Your task to perform on an android device: Open notification settings Image 0: 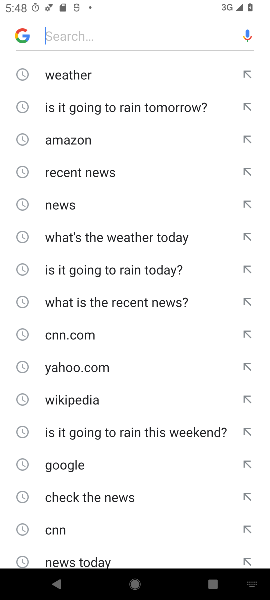
Step 0: press home button
Your task to perform on an android device: Open notification settings Image 1: 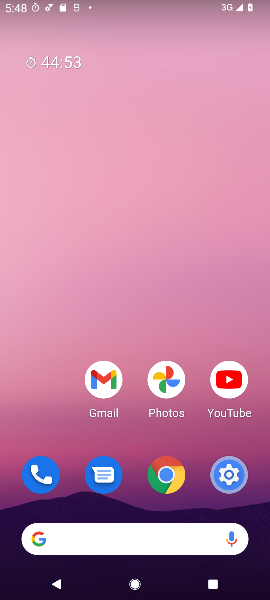
Step 1: drag from (54, 368) to (51, 117)
Your task to perform on an android device: Open notification settings Image 2: 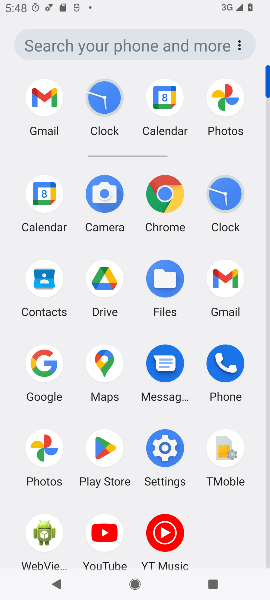
Step 2: click (159, 454)
Your task to perform on an android device: Open notification settings Image 3: 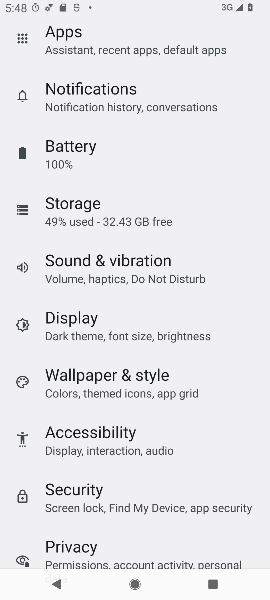
Step 3: drag from (222, 292) to (230, 361)
Your task to perform on an android device: Open notification settings Image 4: 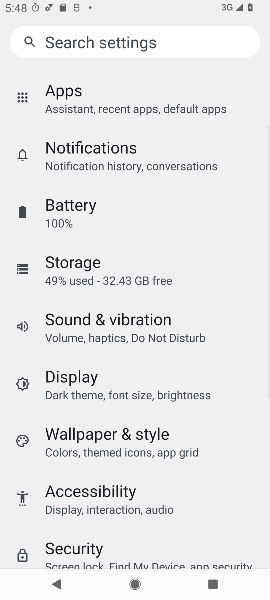
Step 4: drag from (233, 250) to (235, 344)
Your task to perform on an android device: Open notification settings Image 5: 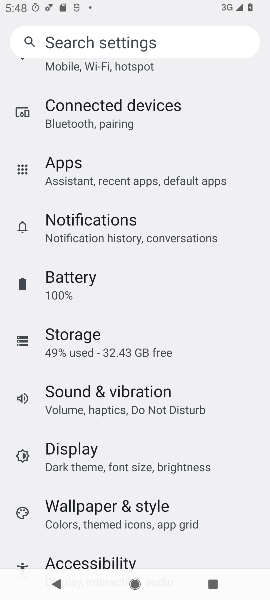
Step 5: drag from (234, 254) to (234, 349)
Your task to perform on an android device: Open notification settings Image 6: 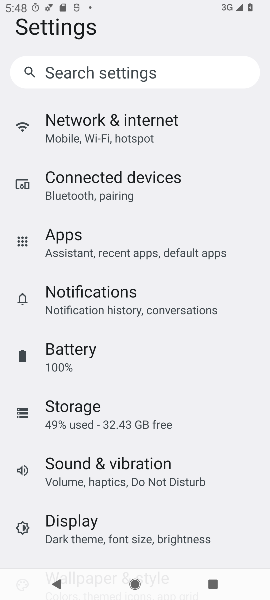
Step 6: drag from (237, 208) to (246, 351)
Your task to perform on an android device: Open notification settings Image 7: 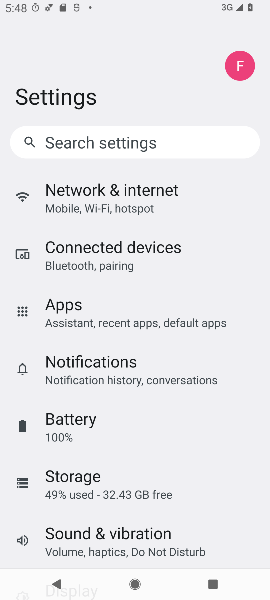
Step 7: click (172, 373)
Your task to perform on an android device: Open notification settings Image 8: 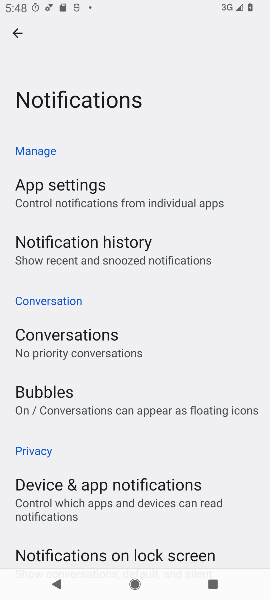
Step 8: task complete